Your task to perform on an android device: When is my next appointment? Image 0: 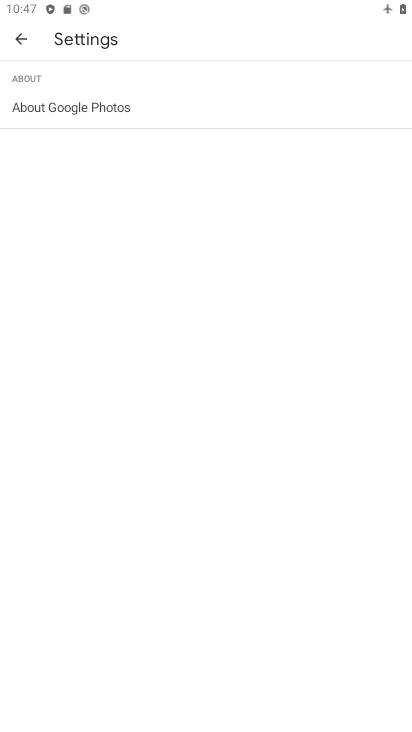
Step 0: press home button
Your task to perform on an android device: When is my next appointment? Image 1: 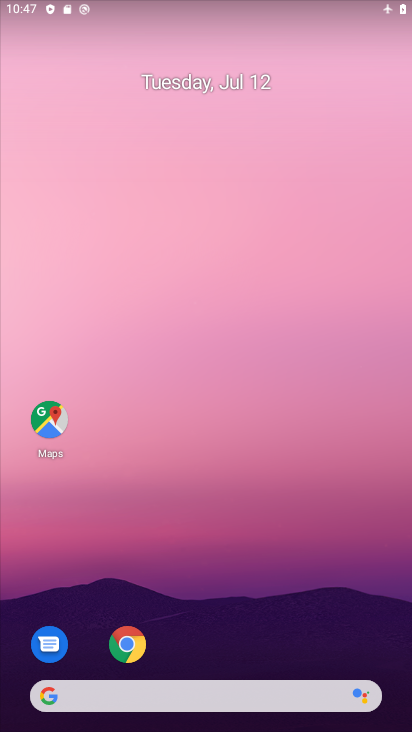
Step 1: drag from (199, 511) to (200, 398)
Your task to perform on an android device: When is my next appointment? Image 2: 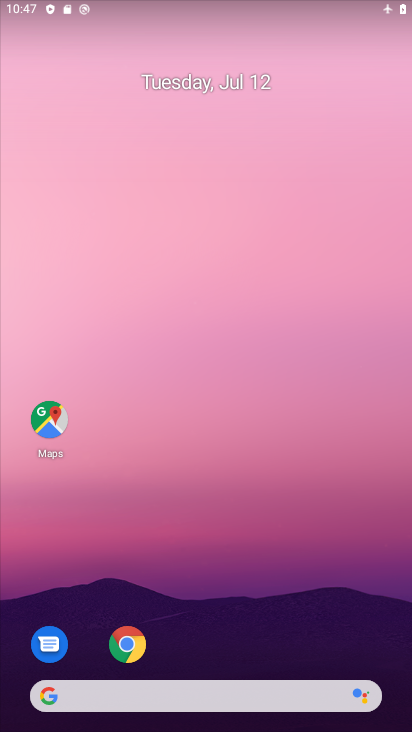
Step 2: drag from (199, 677) to (238, 227)
Your task to perform on an android device: When is my next appointment? Image 3: 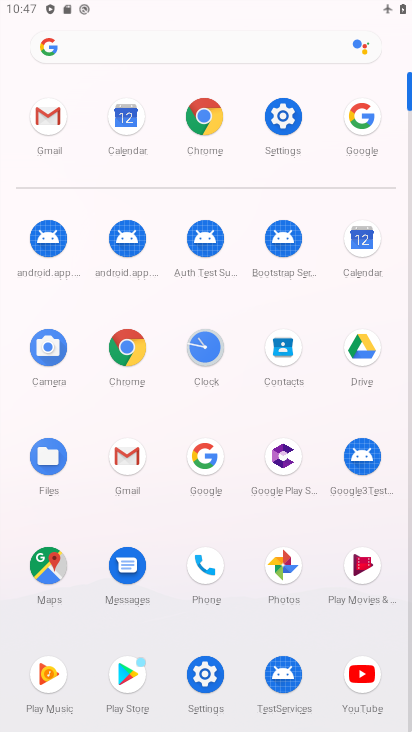
Step 3: click (131, 115)
Your task to perform on an android device: When is my next appointment? Image 4: 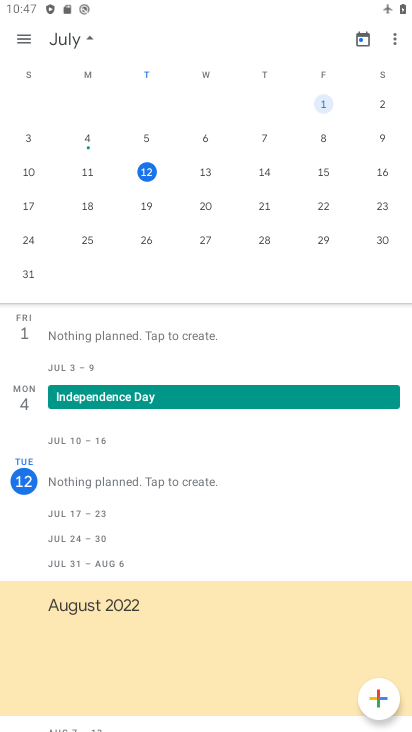
Step 4: click (149, 165)
Your task to perform on an android device: When is my next appointment? Image 5: 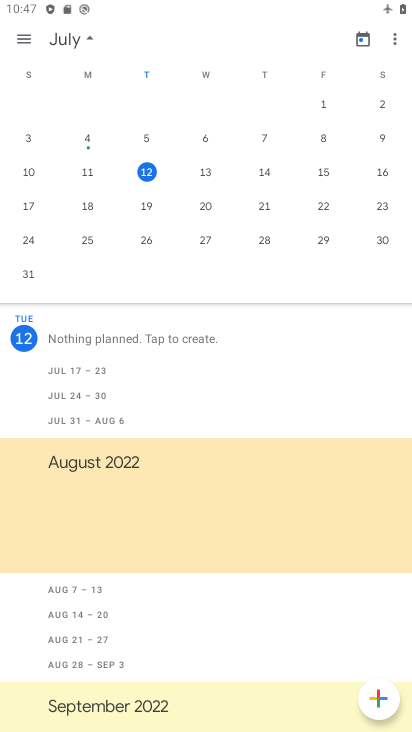
Step 5: task complete